Your task to perform on an android device: Open network settings Image 0: 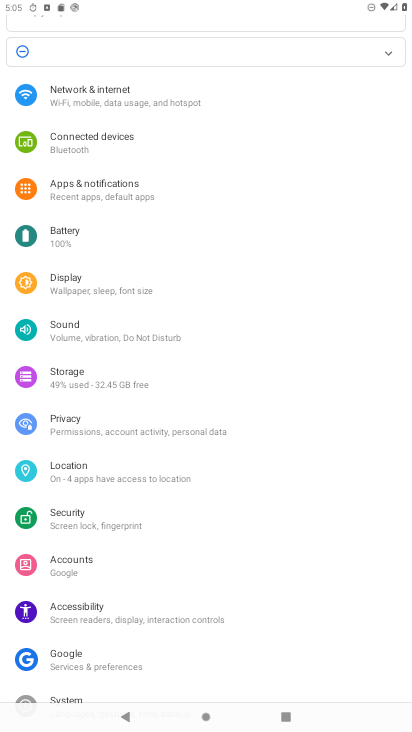
Step 0: press home button
Your task to perform on an android device: Open network settings Image 1: 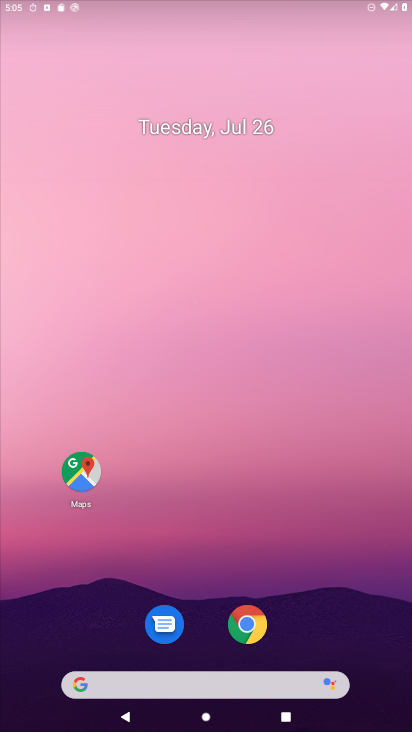
Step 1: drag from (251, 695) to (322, 1)
Your task to perform on an android device: Open network settings Image 2: 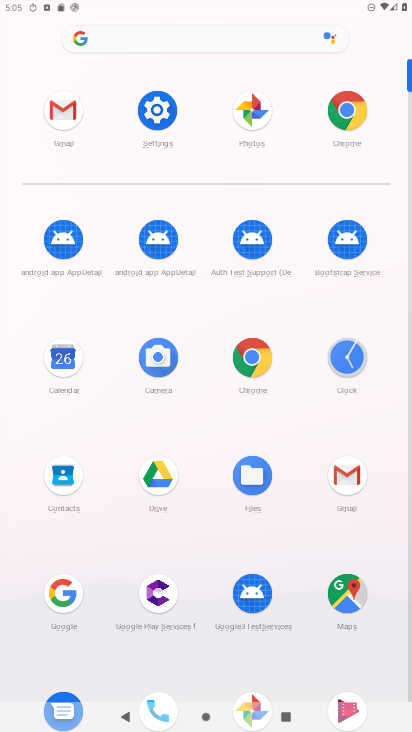
Step 2: click (146, 118)
Your task to perform on an android device: Open network settings Image 3: 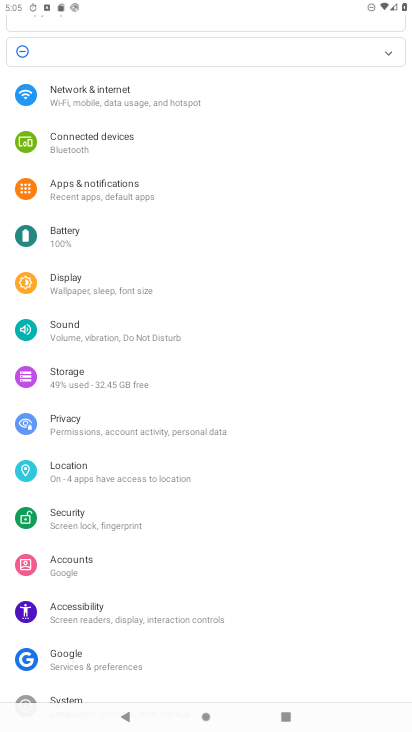
Step 3: click (148, 106)
Your task to perform on an android device: Open network settings Image 4: 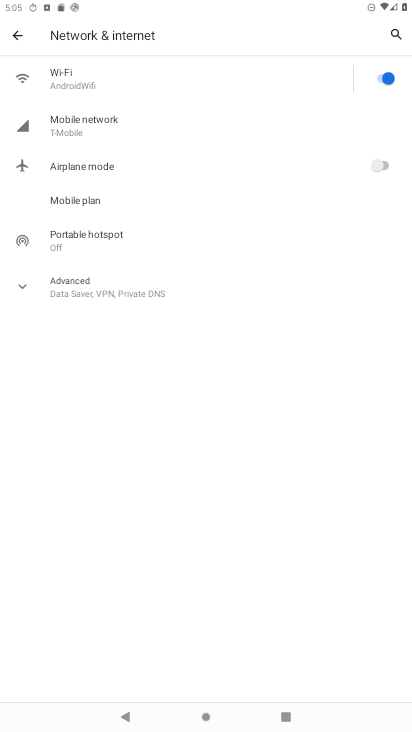
Step 4: task complete